Your task to perform on an android device: turn off picture-in-picture Image 0: 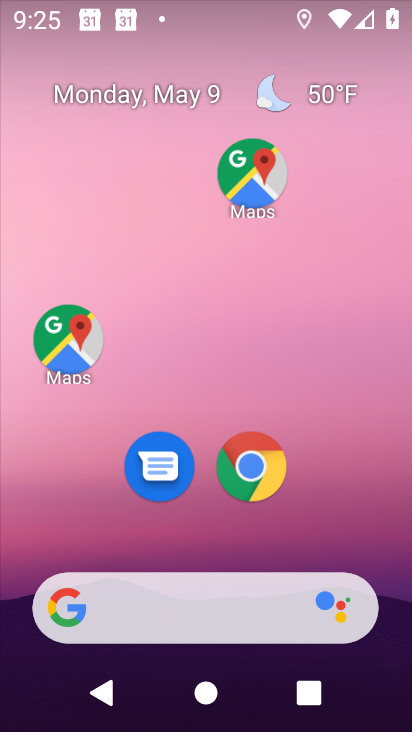
Step 0: click (240, 484)
Your task to perform on an android device: turn off picture-in-picture Image 1: 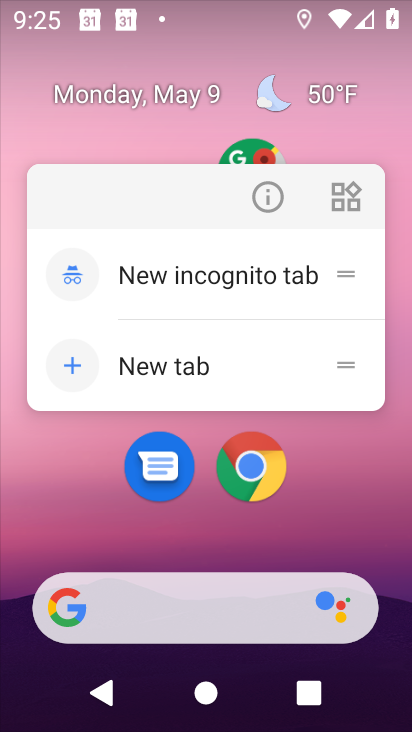
Step 1: click (271, 199)
Your task to perform on an android device: turn off picture-in-picture Image 2: 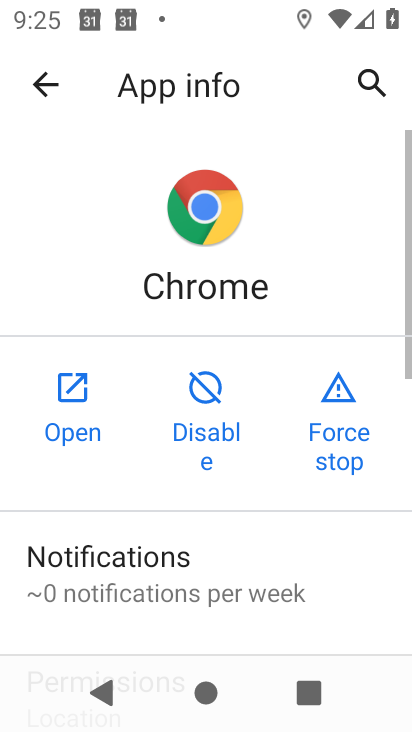
Step 2: drag from (220, 578) to (201, 176)
Your task to perform on an android device: turn off picture-in-picture Image 3: 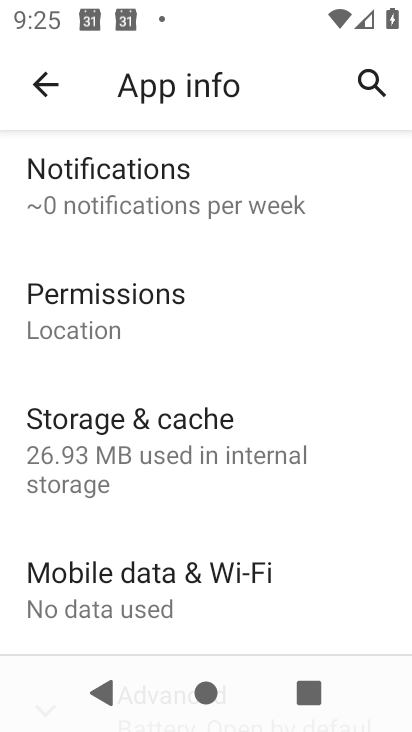
Step 3: drag from (119, 582) to (125, 144)
Your task to perform on an android device: turn off picture-in-picture Image 4: 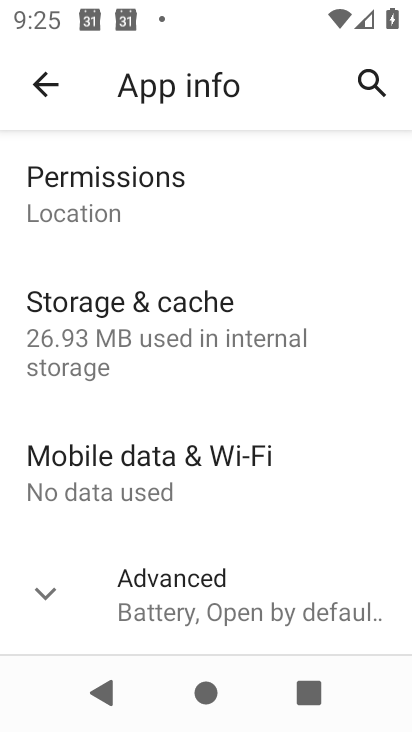
Step 4: click (254, 607)
Your task to perform on an android device: turn off picture-in-picture Image 5: 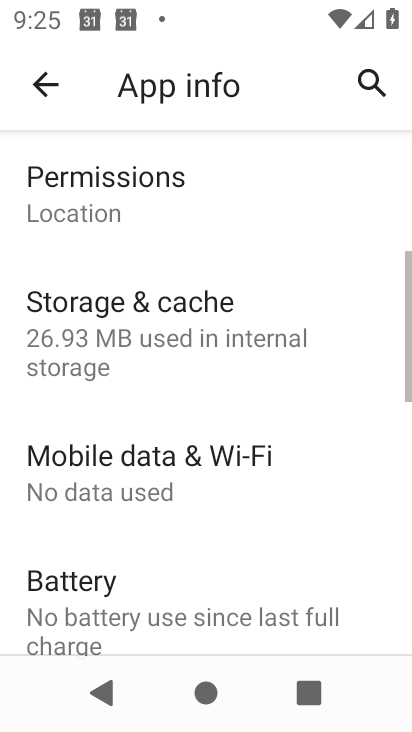
Step 5: drag from (236, 579) to (264, 192)
Your task to perform on an android device: turn off picture-in-picture Image 6: 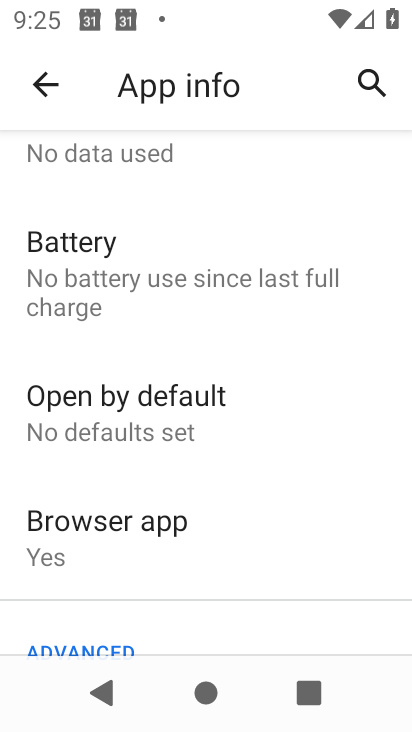
Step 6: drag from (203, 525) to (232, 200)
Your task to perform on an android device: turn off picture-in-picture Image 7: 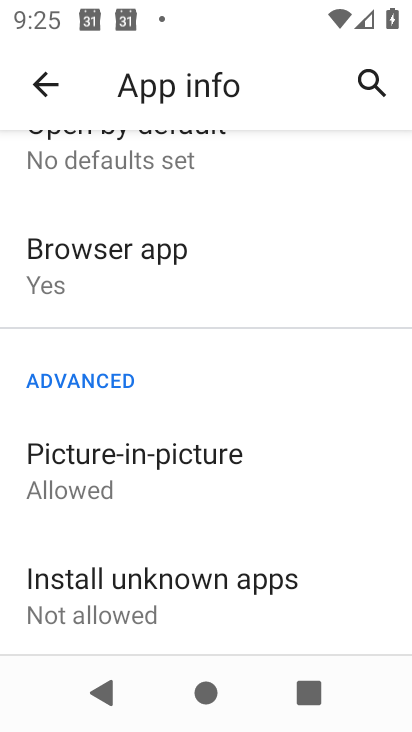
Step 7: click (204, 480)
Your task to perform on an android device: turn off picture-in-picture Image 8: 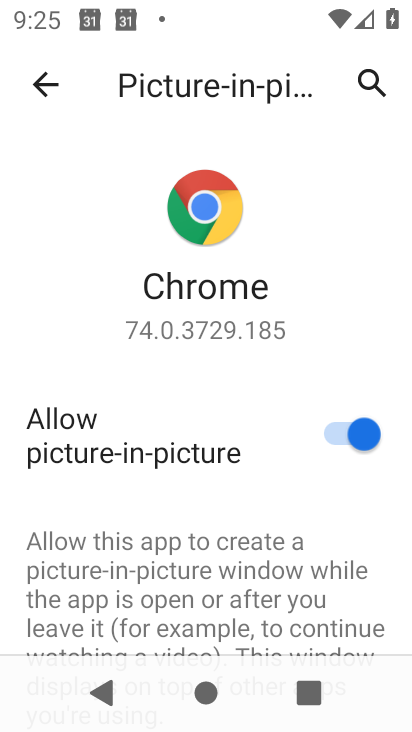
Step 8: click (333, 429)
Your task to perform on an android device: turn off picture-in-picture Image 9: 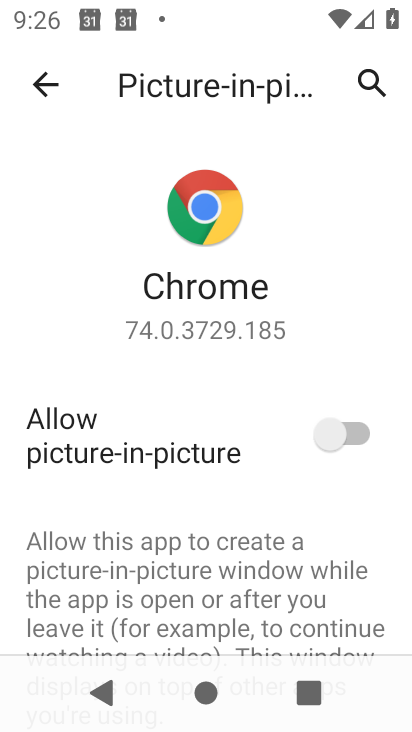
Step 9: task complete